Your task to perform on an android device: Check the weather Image 0: 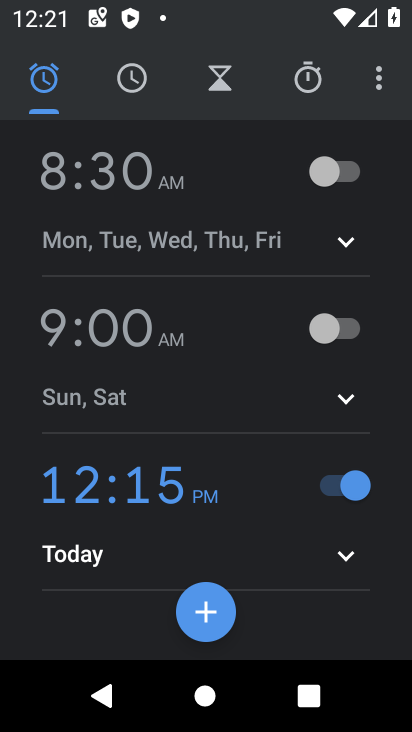
Step 0: press home button
Your task to perform on an android device: Check the weather Image 1: 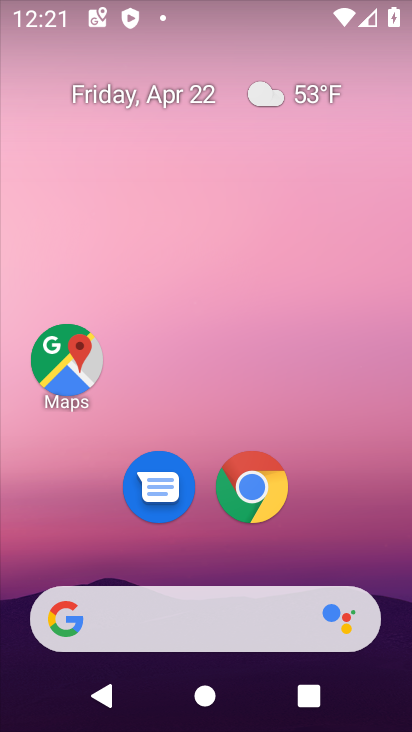
Step 1: click (141, 621)
Your task to perform on an android device: Check the weather Image 2: 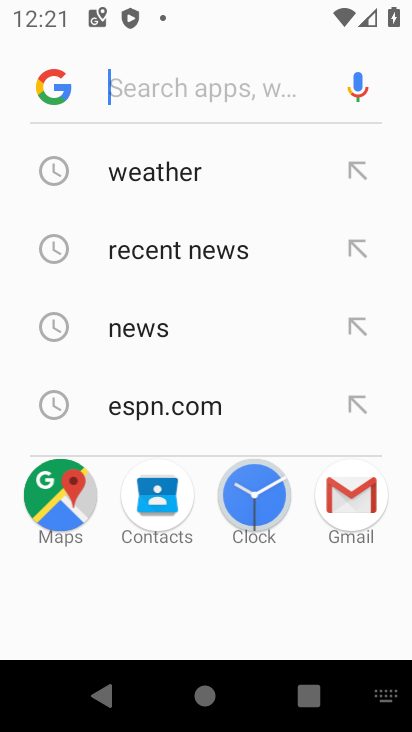
Step 2: click (131, 167)
Your task to perform on an android device: Check the weather Image 3: 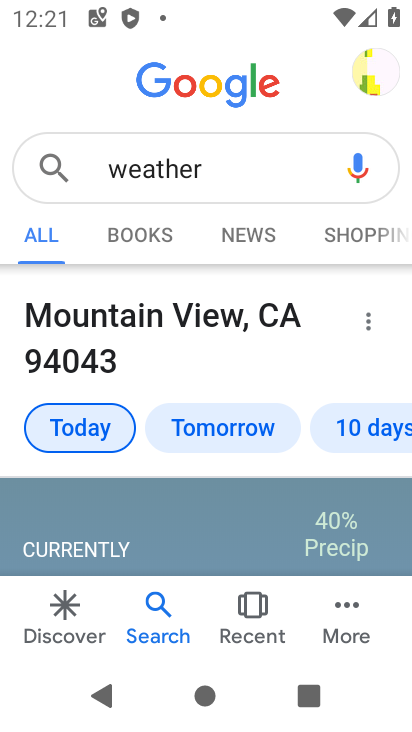
Step 3: task complete